Your task to perform on an android device: find photos in the google photos app Image 0: 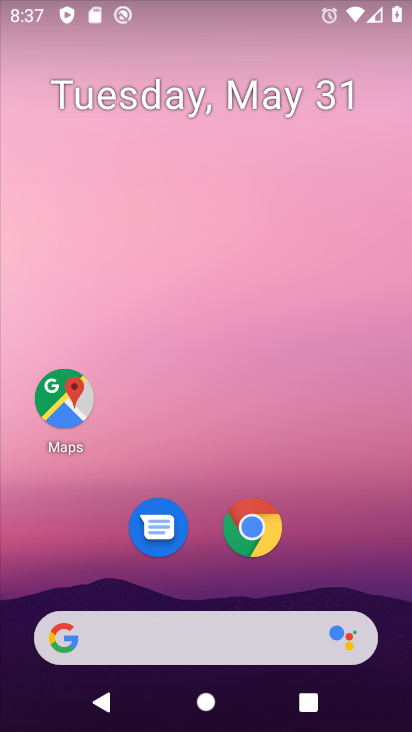
Step 0: drag from (189, 604) to (241, 301)
Your task to perform on an android device: find photos in the google photos app Image 1: 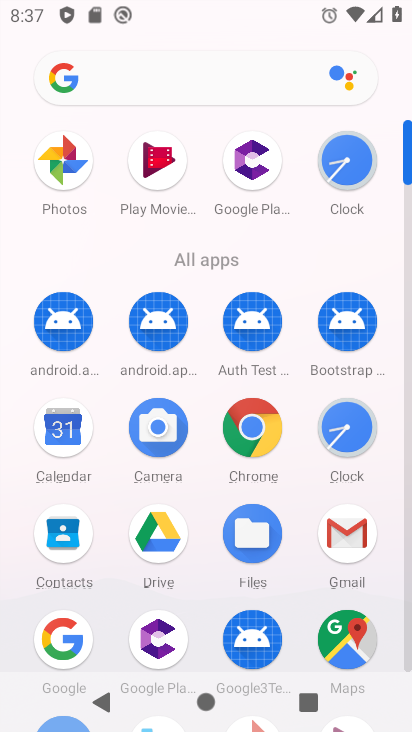
Step 1: drag from (302, 646) to (243, 279)
Your task to perform on an android device: find photos in the google photos app Image 2: 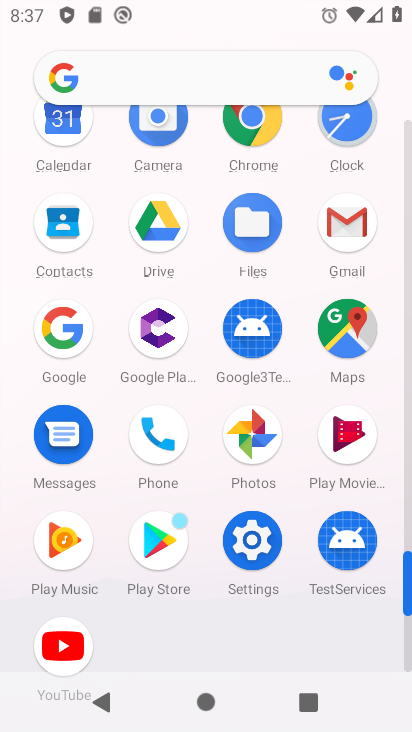
Step 2: click (241, 425)
Your task to perform on an android device: find photos in the google photos app Image 3: 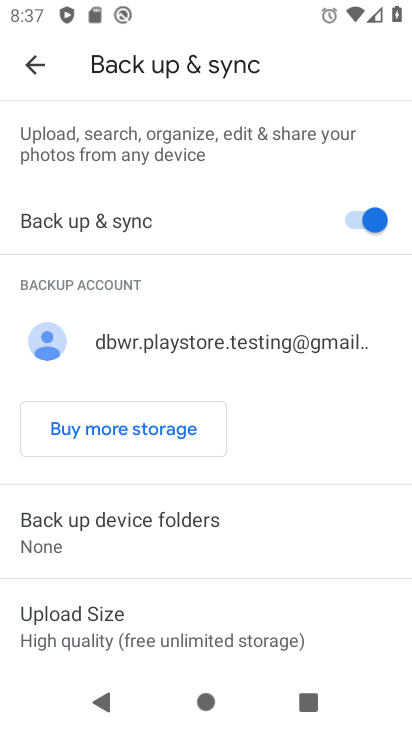
Step 3: click (38, 72)
Your task to perform on an android device: find photos in the google photos app Image 4: 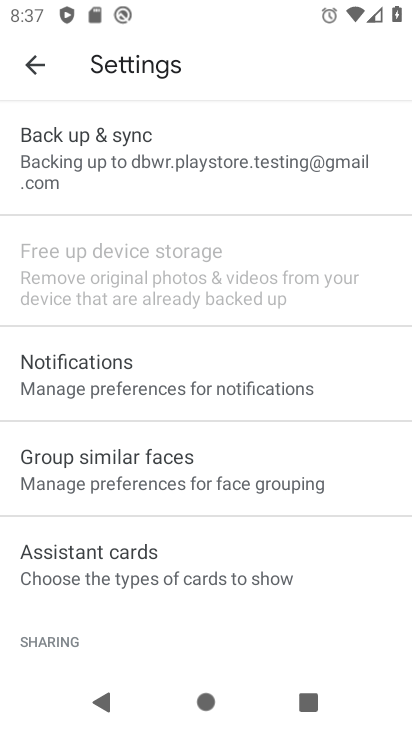
Step 4: click (28, 65)
Your task to perform on an android device: find photos in the google photos app Image 5: 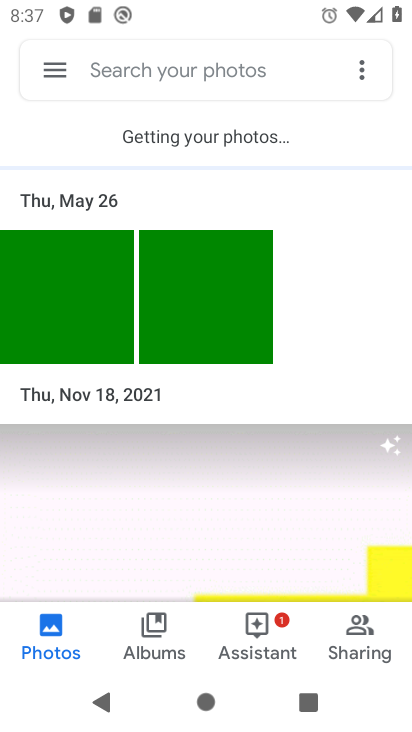
Step 5: task complete